Your task to perform on an android device: turn on bluetooth scan Image 0: 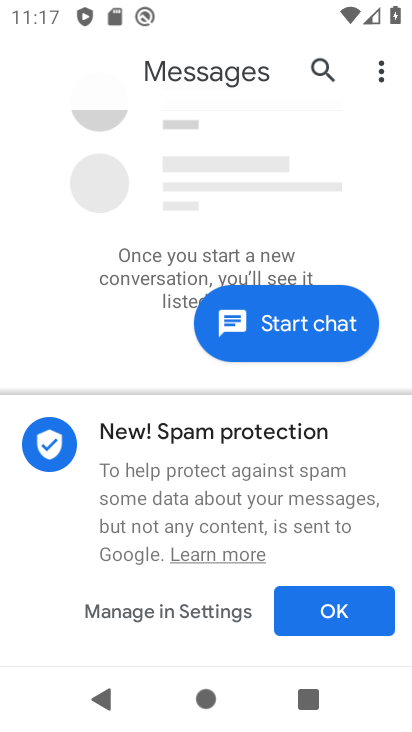
Step 0: press home button
Your task to perform on an android device: turn on bluetooth scan Image 1: 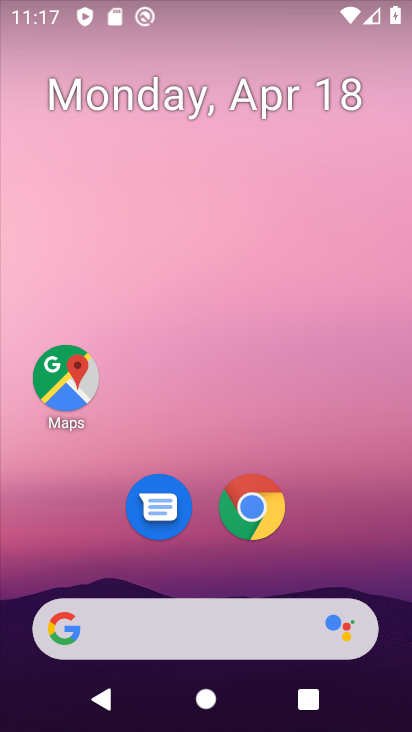
Step 1: drag from (338, 543) to (362, 272)
Your task to perform on an android device: turn on bluetooth scan Image 2: 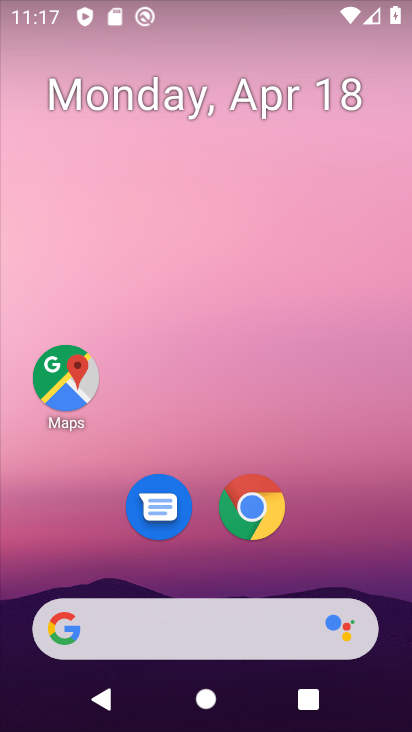
Step 2: drag from (333, 547) to (350, 83)
Your task to perform on an android device: turn on bluetooth scan Image 3: 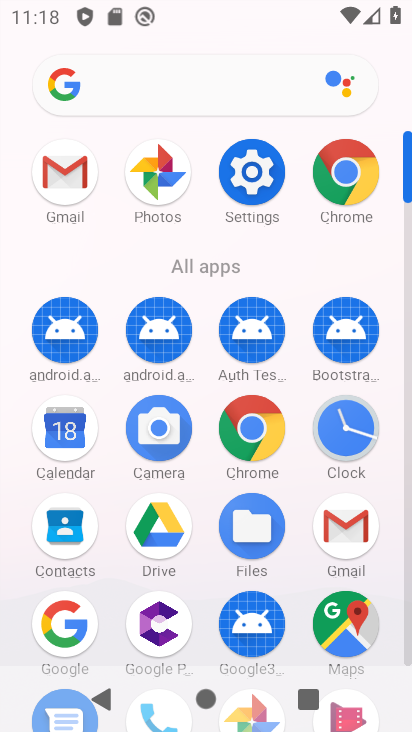
Step 3: click (241, 184)
Your task to perform on an android device: turn on bluetooth scan Image 4: 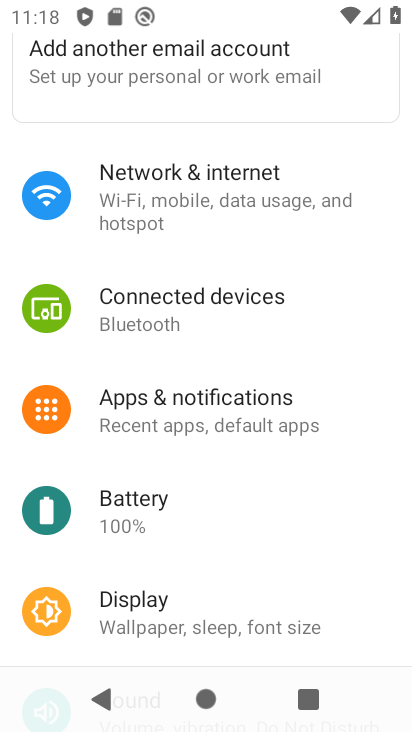
Step 4: drag from (221, 617) to (238, 211)
Your task to perform on an android device: turn on bluetooth scan Image 5: 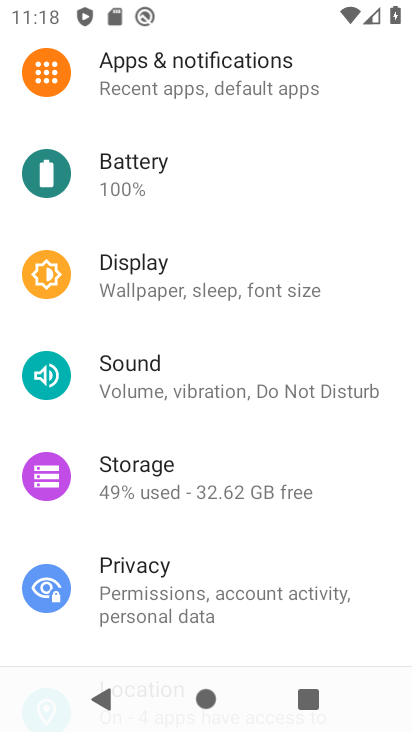
Step 5: drag from (231, 624) to (222, 361)
Your task to perform on an android device: turn on bluetooth scan Image 6: 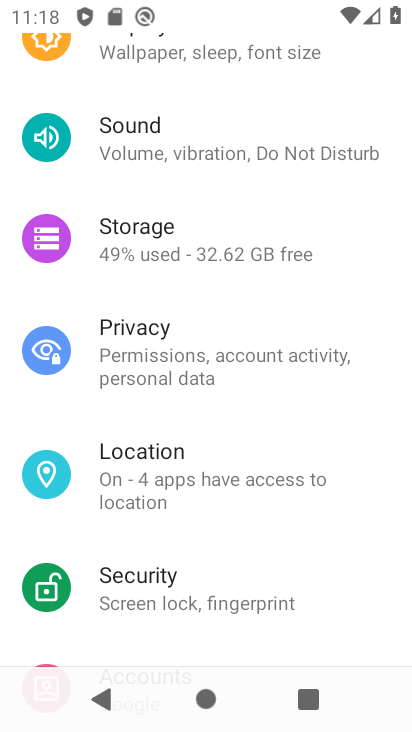
Step 6: click (183, 492)
Your task to perform on an android device: turn on bluetooth scan Image 7: 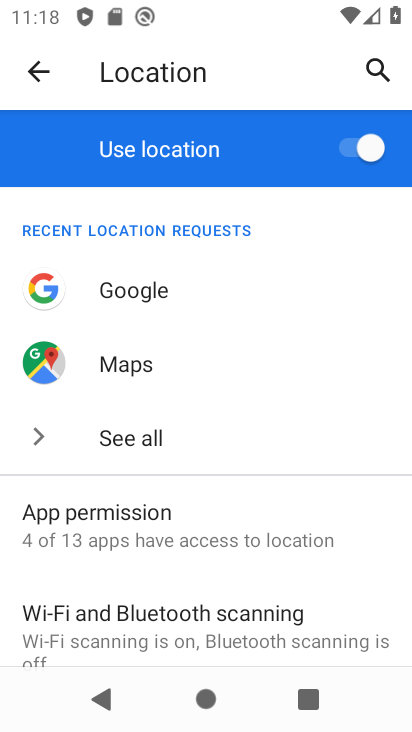
Step 7: drag from (207, 583) to (198, 380)
Your task to perform on an android device: turn on bluetooth scan Image 8: 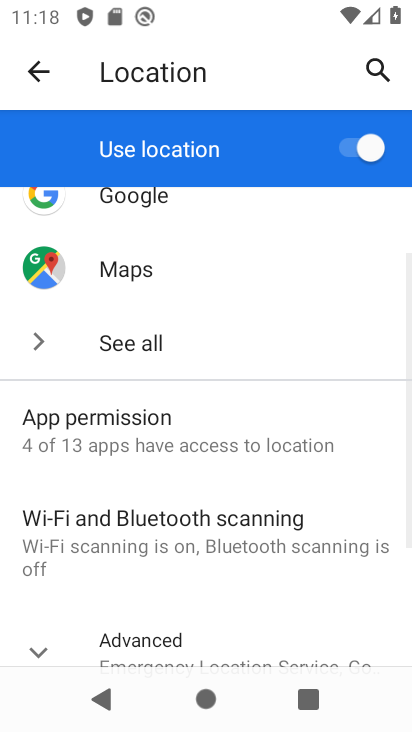
Step 8: click (204, 564)
Your task to perform on an android device: turn on bluetooth scan Image 9: 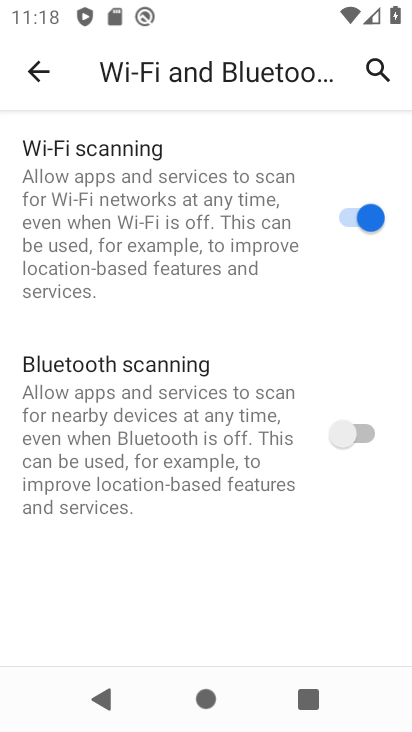
Step 9: click (350, 436)
Your task to perform on an android device: turn on bluetooth scan Image 10: 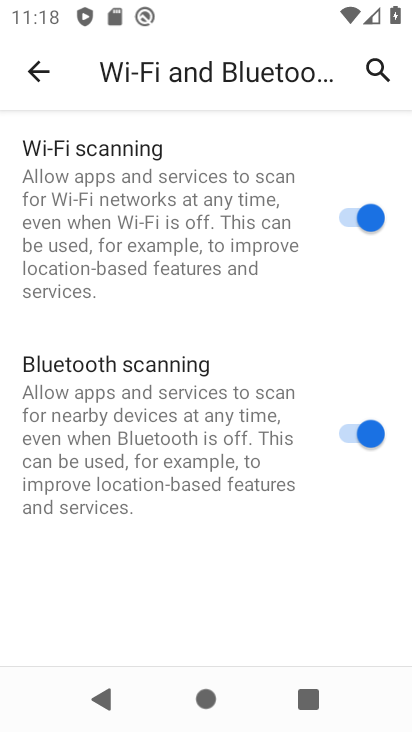
Step 10: task complete